Your task to perform on an android device: Search for vintage wall art on Etsy. Image 0: 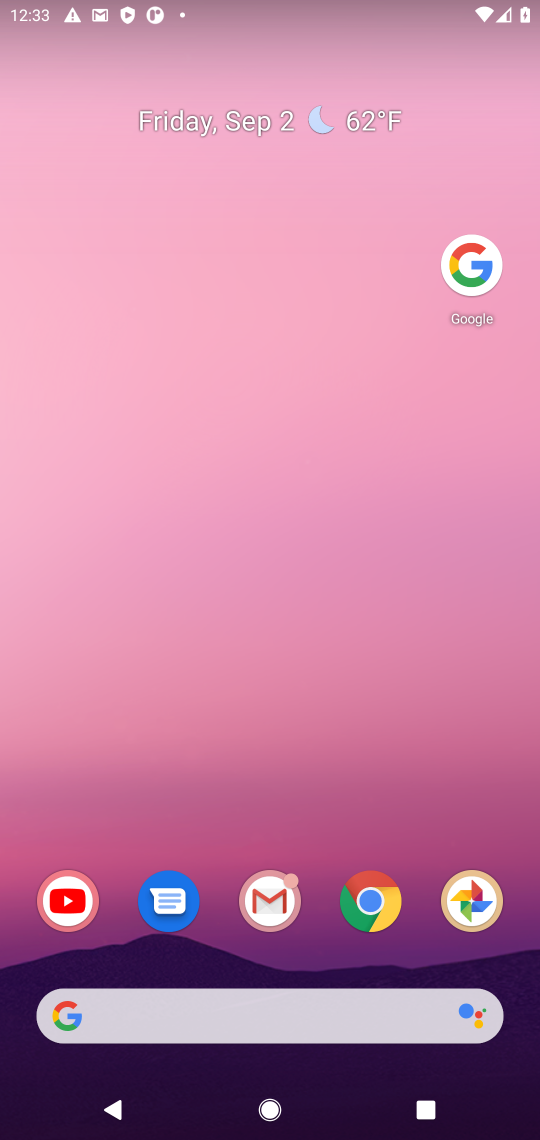
Step 0: drag from (177, 924) to (197, 413)
Your task to perform on an android device: Search for vintage wall art on Etsy. Image 1: 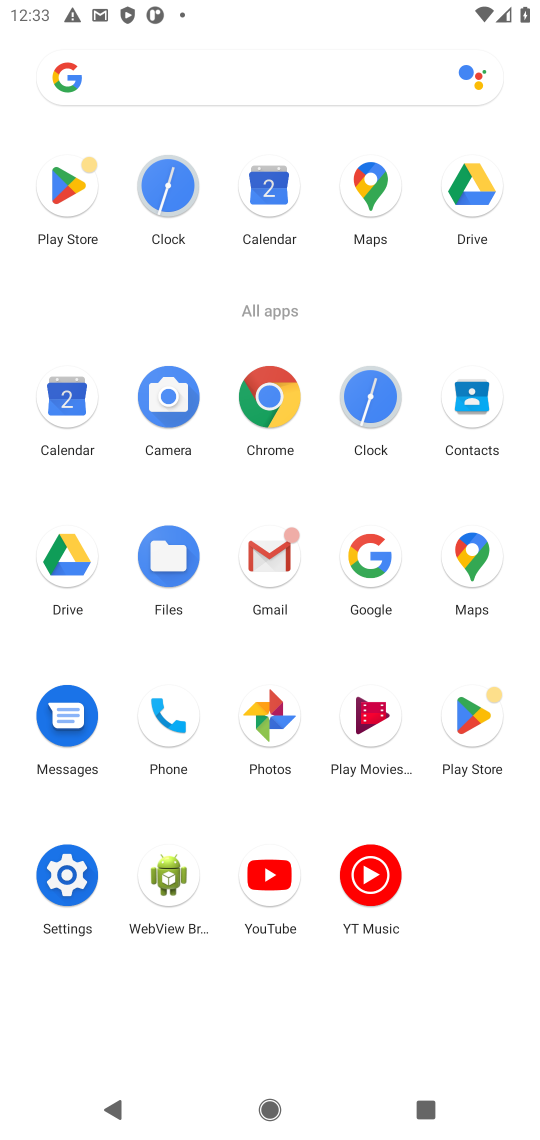
Step 1: click (368, 548)
Your task to perform on an android device: Search for vintage wall art on Etsy. Image 2: 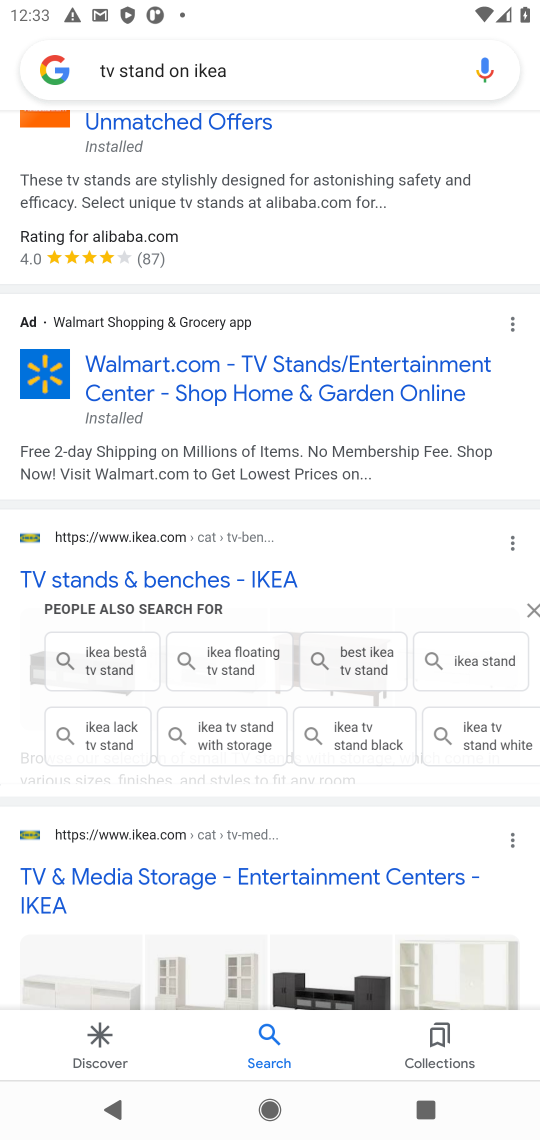
Step 2: click (268, 66)
Your task to perform on an android device: Search for vintage wall art on Etsy. Image 3: 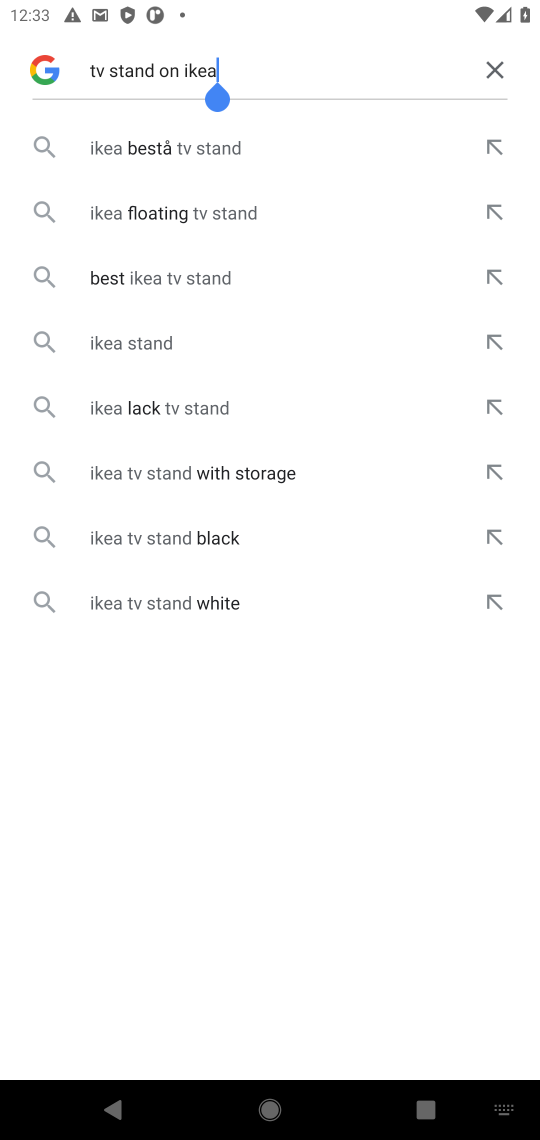
Step 3: click (510, 63)
Your task to perform on an android device: Search for vintage wall art on Etsy. Image 4: 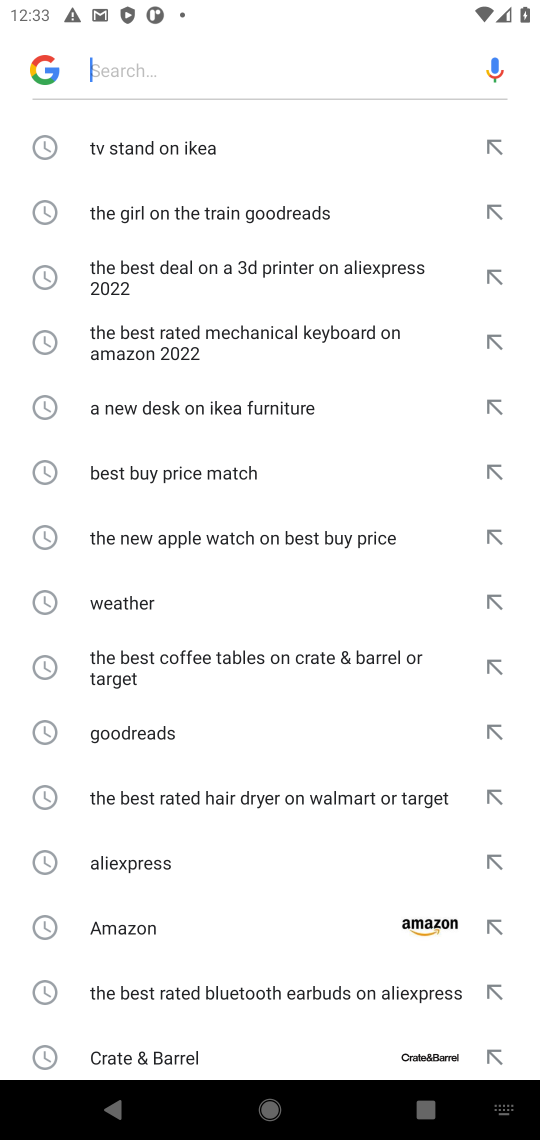
Step 4: click (339, 52)
Your task to perform on an android device: Search for vintage wall art on Etsy. Image 5: 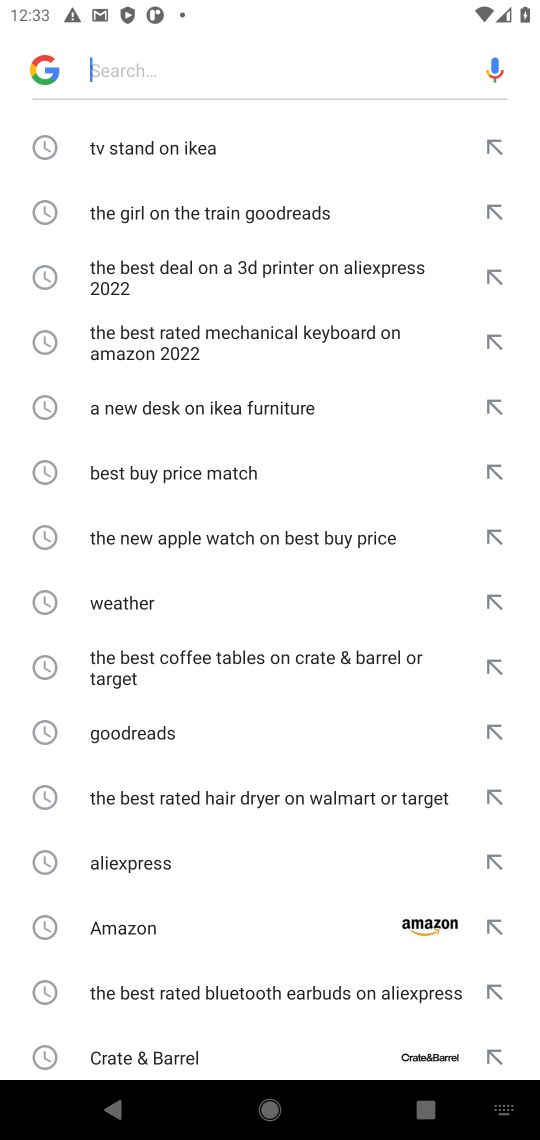
Step 5: type "vintage wall art on Etsy "
Your task to perform on an android device: Search for vintage wall art on Etsy. Image 6: 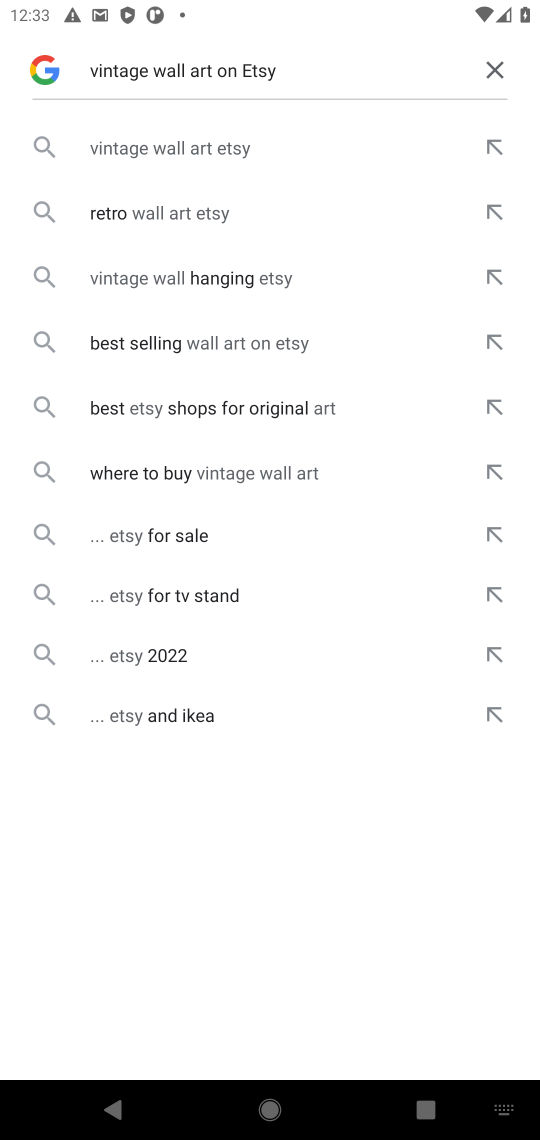
Step 6: click (182, 144)
Your task to perform on an android device: Search for vintage wall art on Etsy. Image 7: 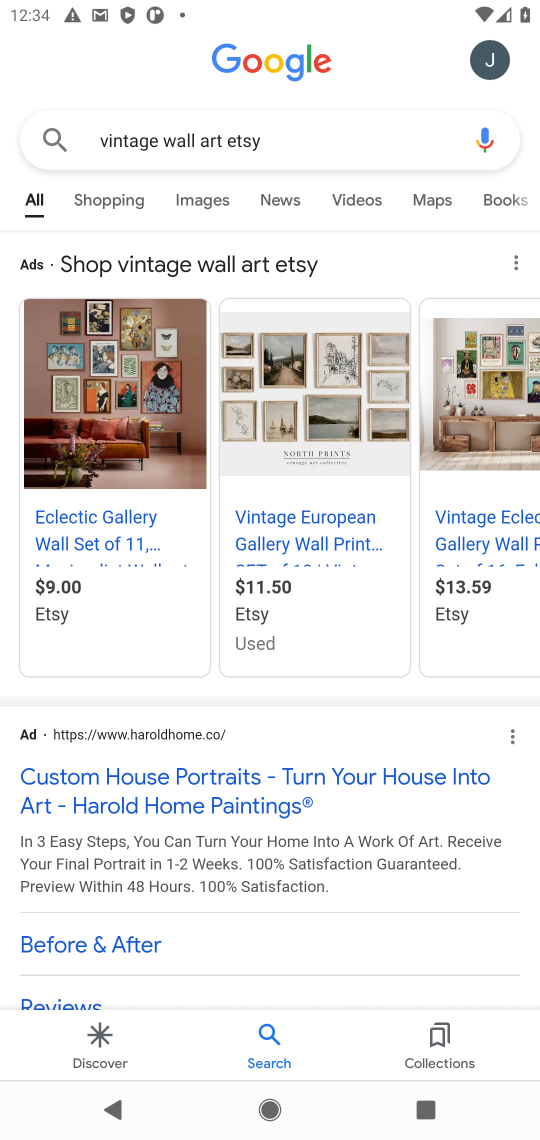
Step 7: task complete